Your task to perform on an android device: open sync settings in chrome Image 0: 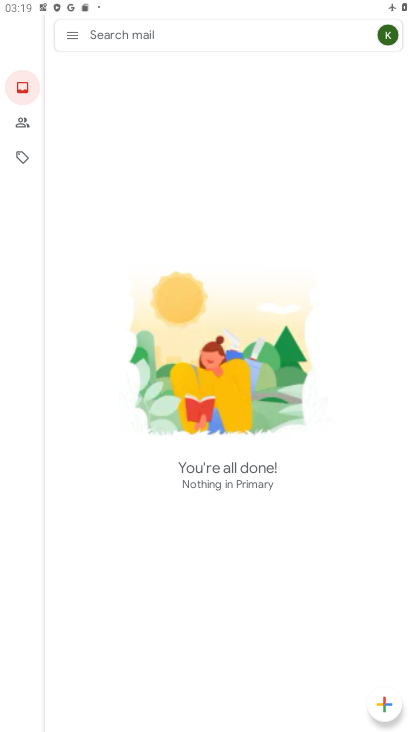
Step 0: press home button
Your task to perform on an android device: open sync settings in chrome Image 1: 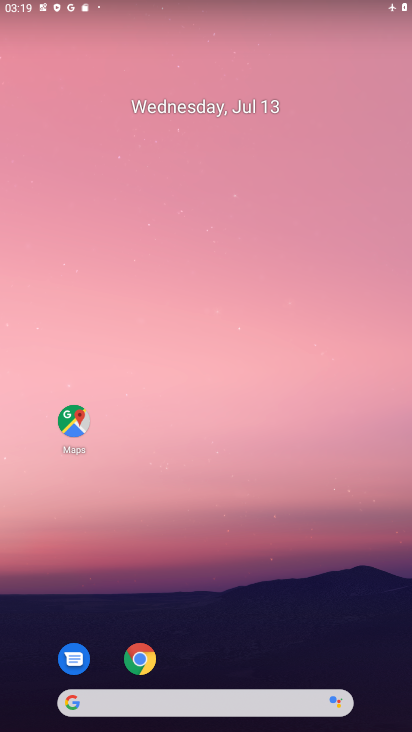
Step 1: click (154, 652)
Your task to perform on an android device: open sync settings in chrome Image 2: 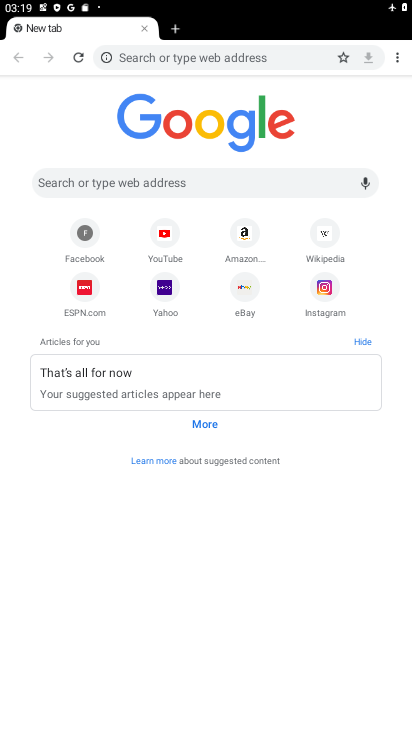
Step 2: click (391, 52)
Your task to perform on an android device: open sync settings in chrome Image 3: 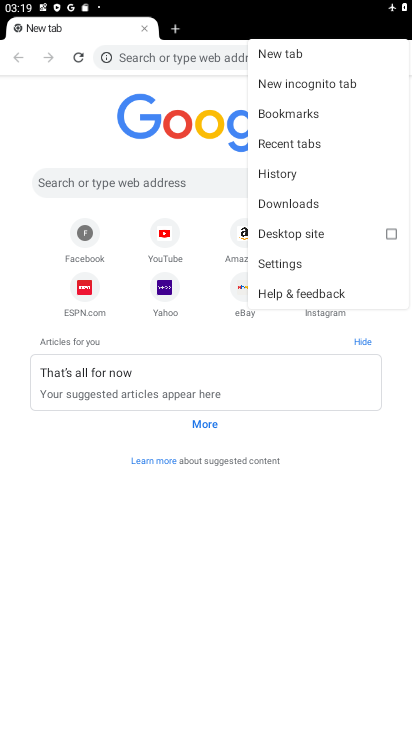
Step 3: click (297, 254)
Your task to perform on an android device: open sync settings in chrome Image 4: 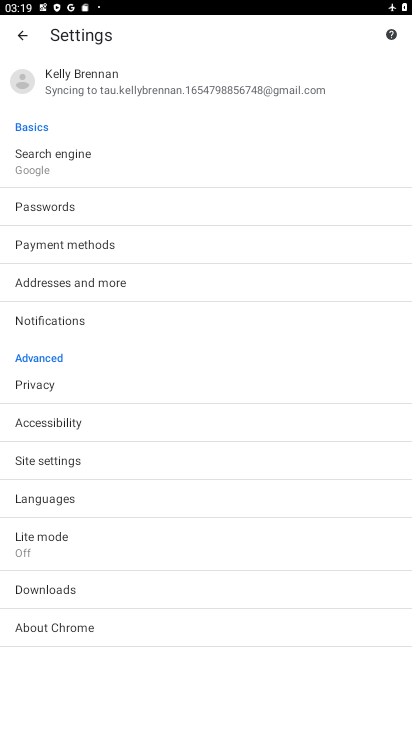
Step 4: click (117, 79)
Your task to perform on an android device: open sync settings in chrome Image 5: 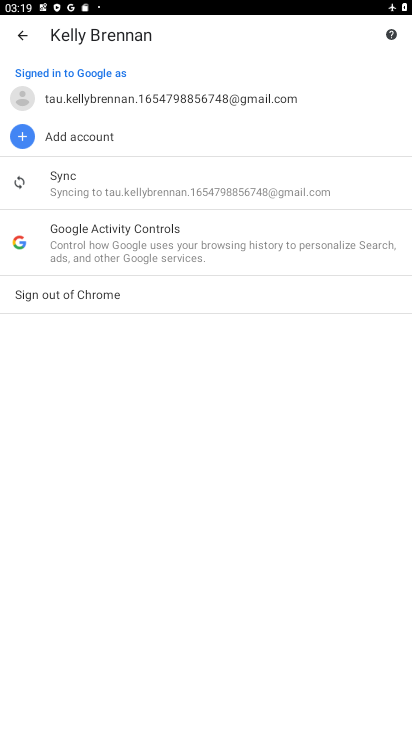
Step 5: click (88, 166)
Your task to perform on an android device: open sync settings in chrome Image 6: 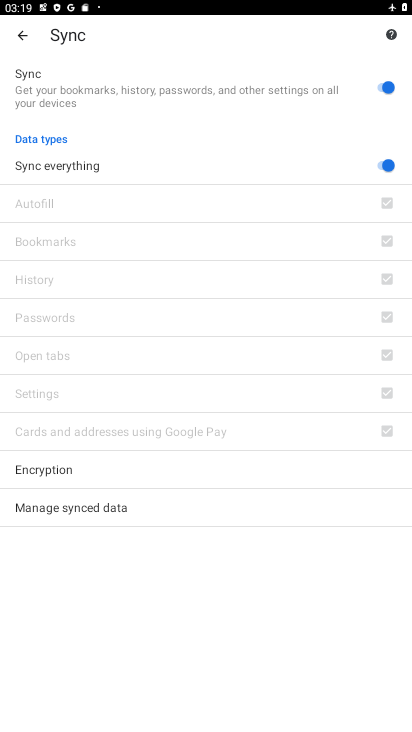
Step 6: task complete